Your task to perform on an android device: Go to Reddit.com Image 0: 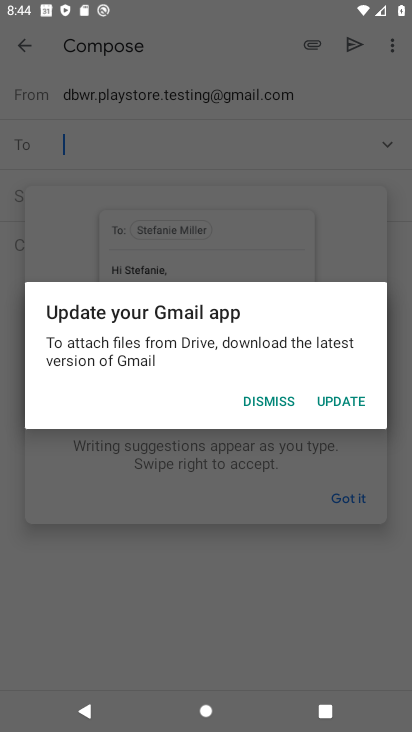
Step 0: press home button
Your task to perform on an android device: Go to Reddit.com Image 1: 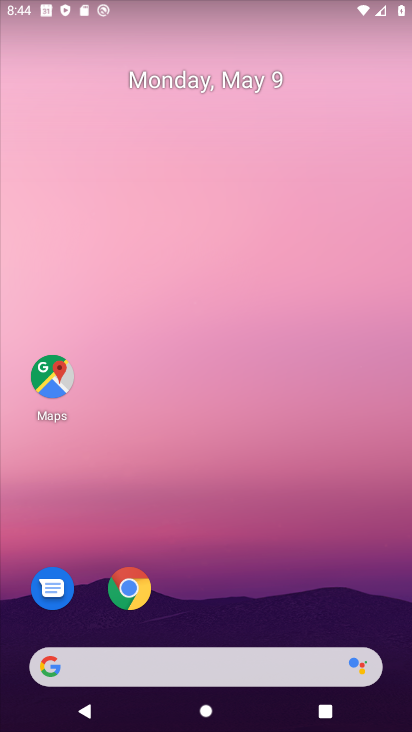
Step 1: click (191, 662)
Your task to perform on an android device: Go to Reddit.com Image 2: 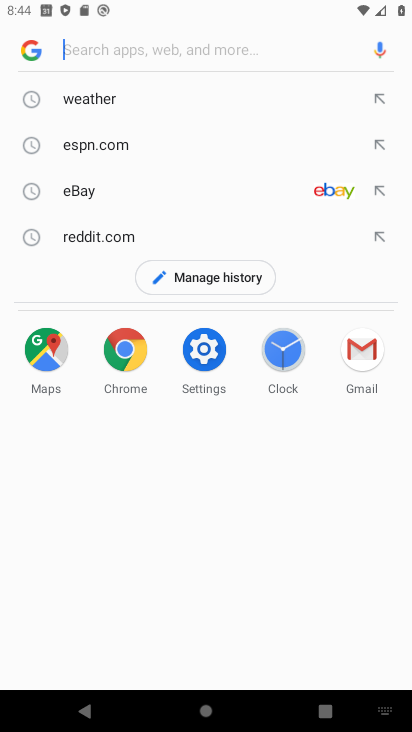
Step 2: click (126, 236)
Your task to perform on an android device: Go to Reddit.com Image 3: 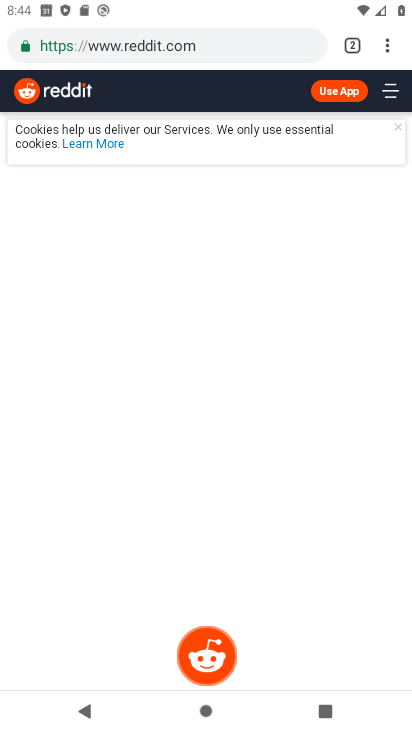
Step 3: task complete